Your task to perform on an android device: Check the news Image 0: 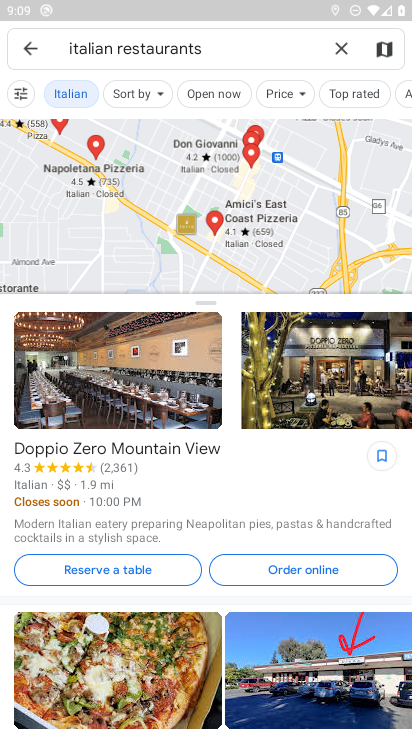
Step 0: press home button
Your task to perform on an android device: Check the news Image 1: 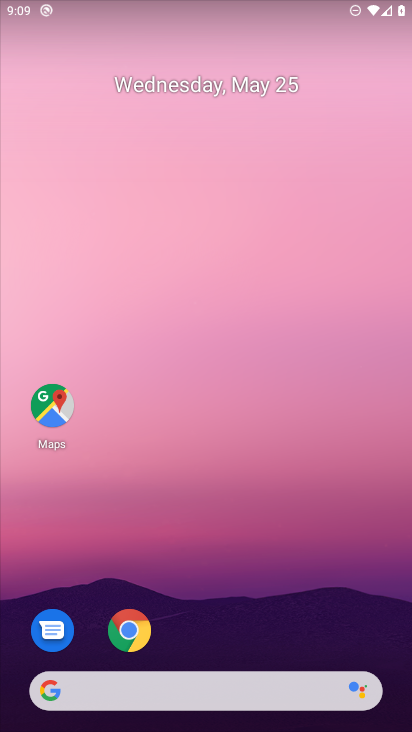
Step 1: drag from (112, 664) to (188, 271)
Your task to perform on an android device: Check the news Image 2: 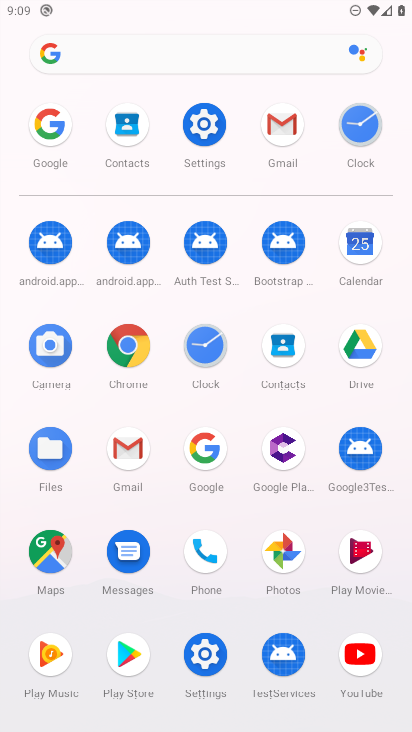
Step 2: click (49, 139)
Your task to perform on an android device: Check the news Image 3: 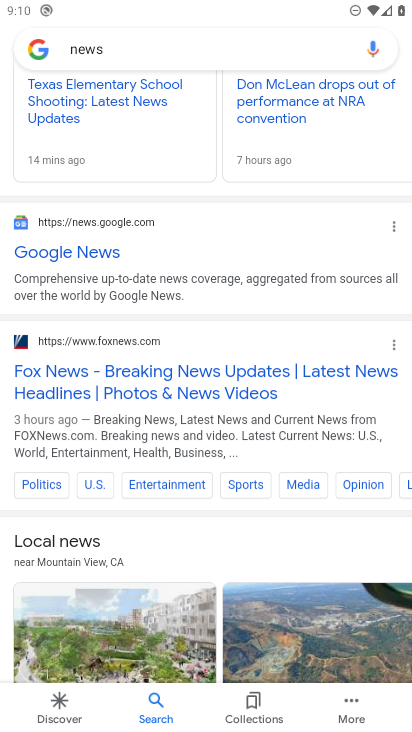
Step 3: task complete